Your task to perform on an android device: open wifi settings Image 0: 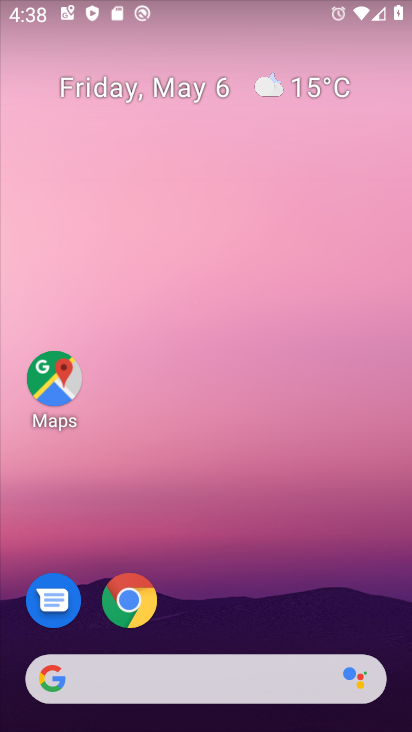
Step 0: drag from (202, 628) to (249, 120)
Your task to perform on an android device: open wifi settings Image 1: 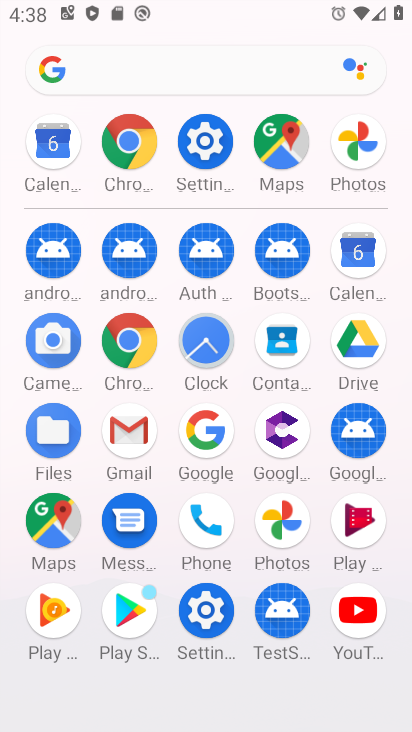
Step 1: click (200, 625)
Your task to perform on an android device: open wifi settings Image 2: 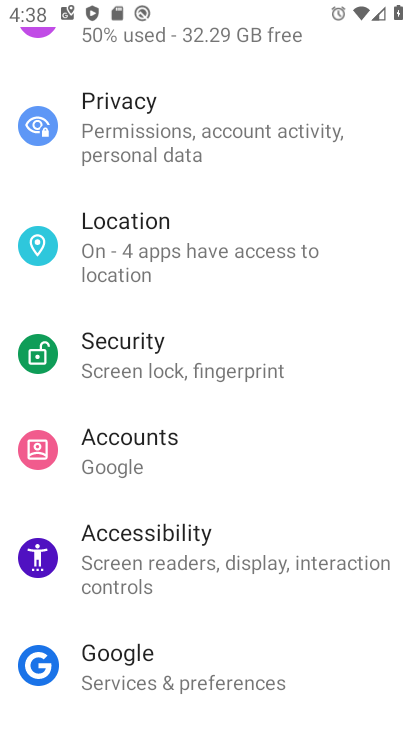
Step 2: drag from (132, 278) to (179, 635)
Your task to perform on an android device: open wifi settings Image 3: 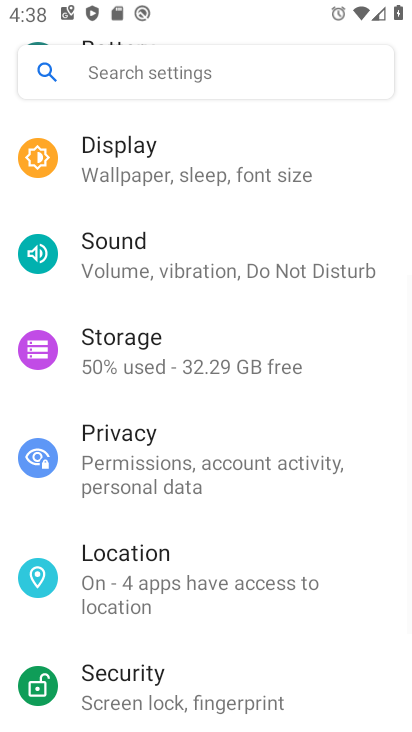
Step 3: drag from (135, 238) to (161, 648)
Your task to perform on an android device: open wifi settings Image 4: 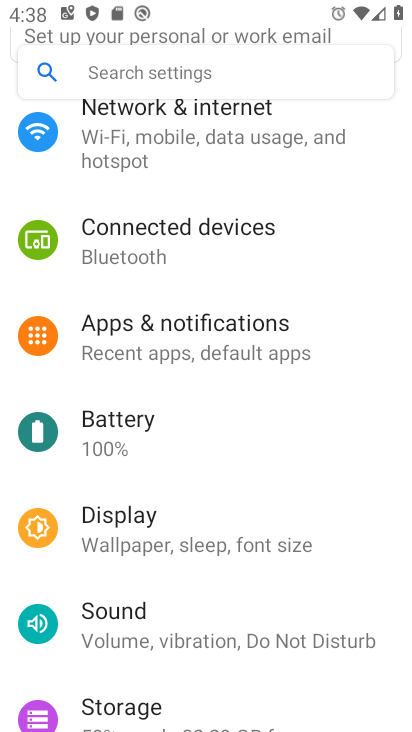
Step 4: drag from (119, 171) to (180, 546)
Your task to perform on an android device: open wifi settings Image 5: 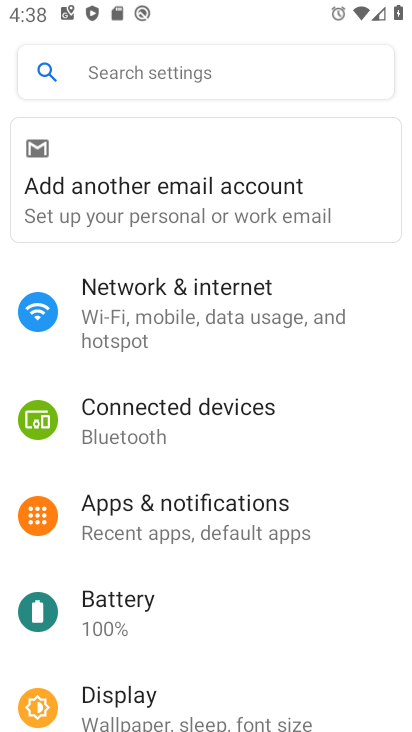
Step 5: click (140, 331)
Your task to perform on an android device: open wifi settings Image 6: 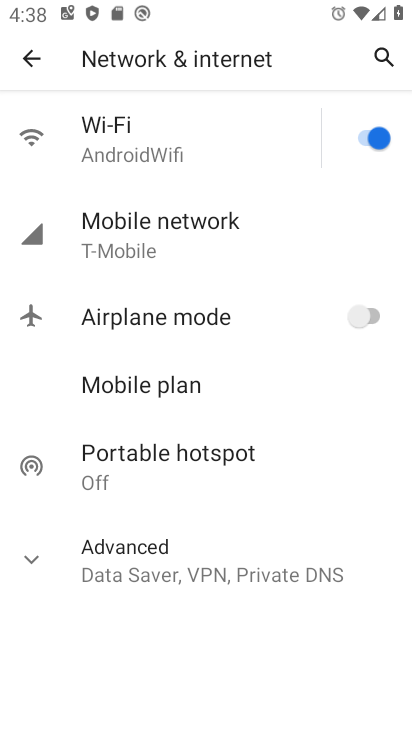
Step 6: click (171, 160)
Your task to perform on an android device: open wifi settings Image 7: 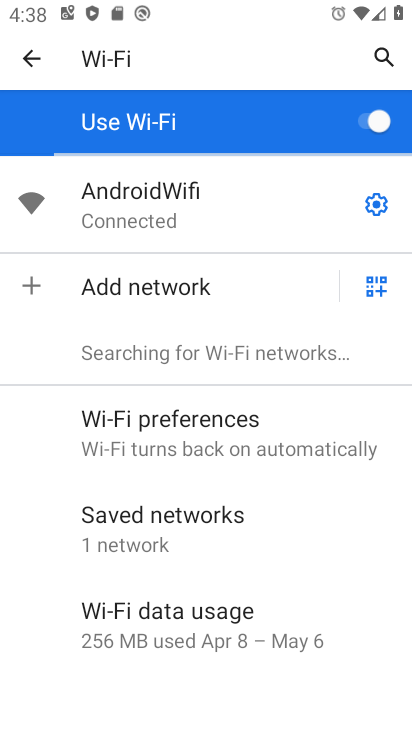
Step 7: task complete